Your task to perform on an android device: show emergency info Image 0: 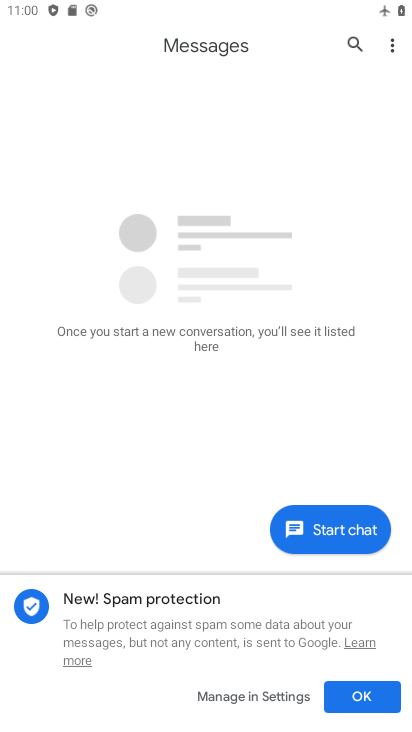
Step 0: press home button
Your task to perform on an android device: show emergency info Image 1: 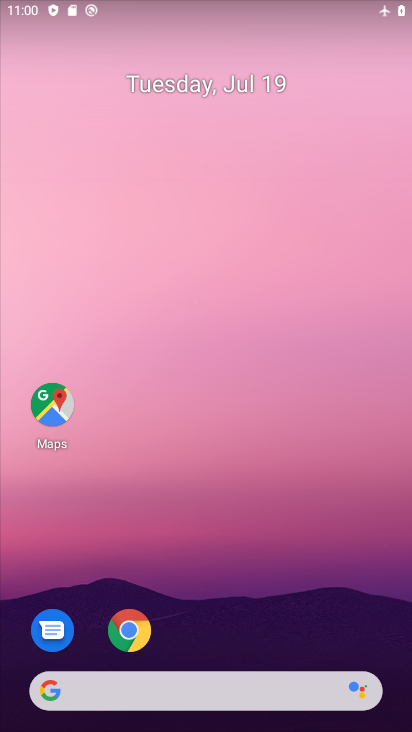
Step 1: drag from (179, 624) to (244, 208)
Your task to perform on an android device: show emergency info Image 2: 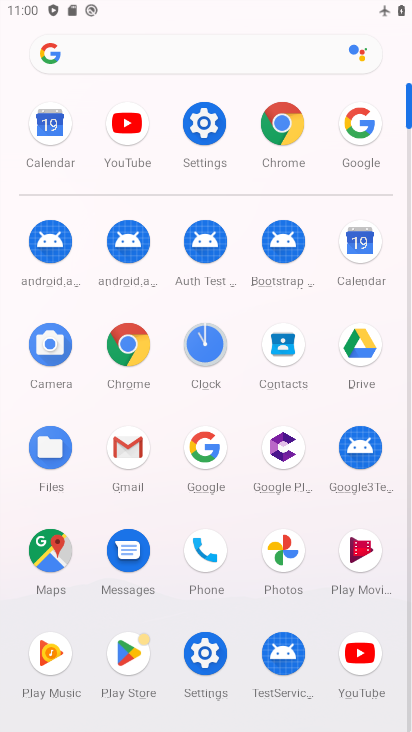
Step 2: click (198, 134)
Your task to perform on an android device: show emergency info Image 3: 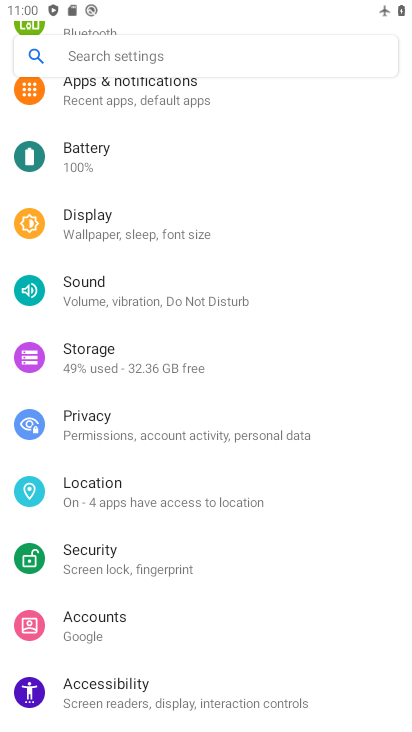
Step 3: drag from (166, 689) to (200, 207)
Your task to perform on an android device: show emergency info Image 4: 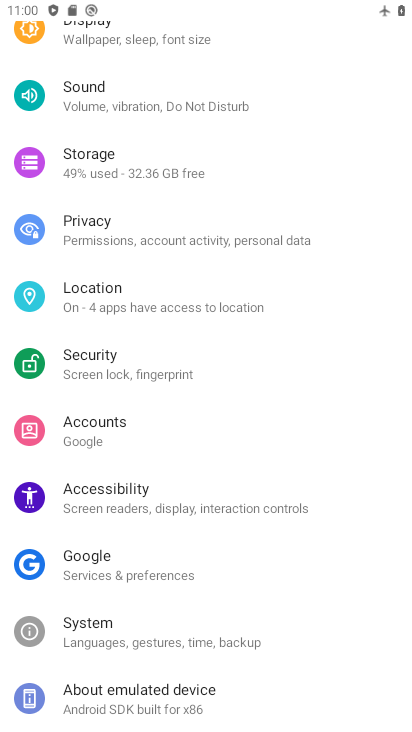
Step 4: click (124, 697)
Your task to perform on an android device: show emergency info Image 5: 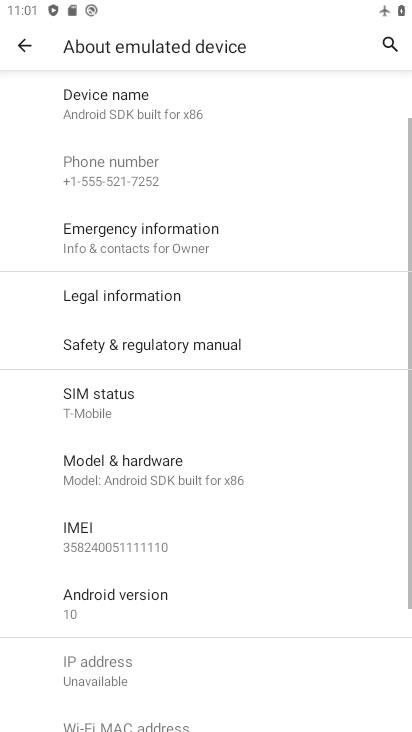
Step 5: click (86, 241)
Your task to perform on an android device: show emergency info Image 6: 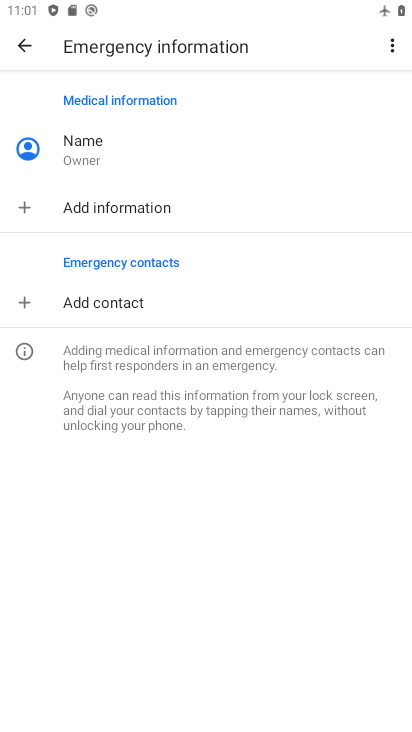
Step 6: task complete